Your task to perform on an android device: toggle sleep mode Image 0: 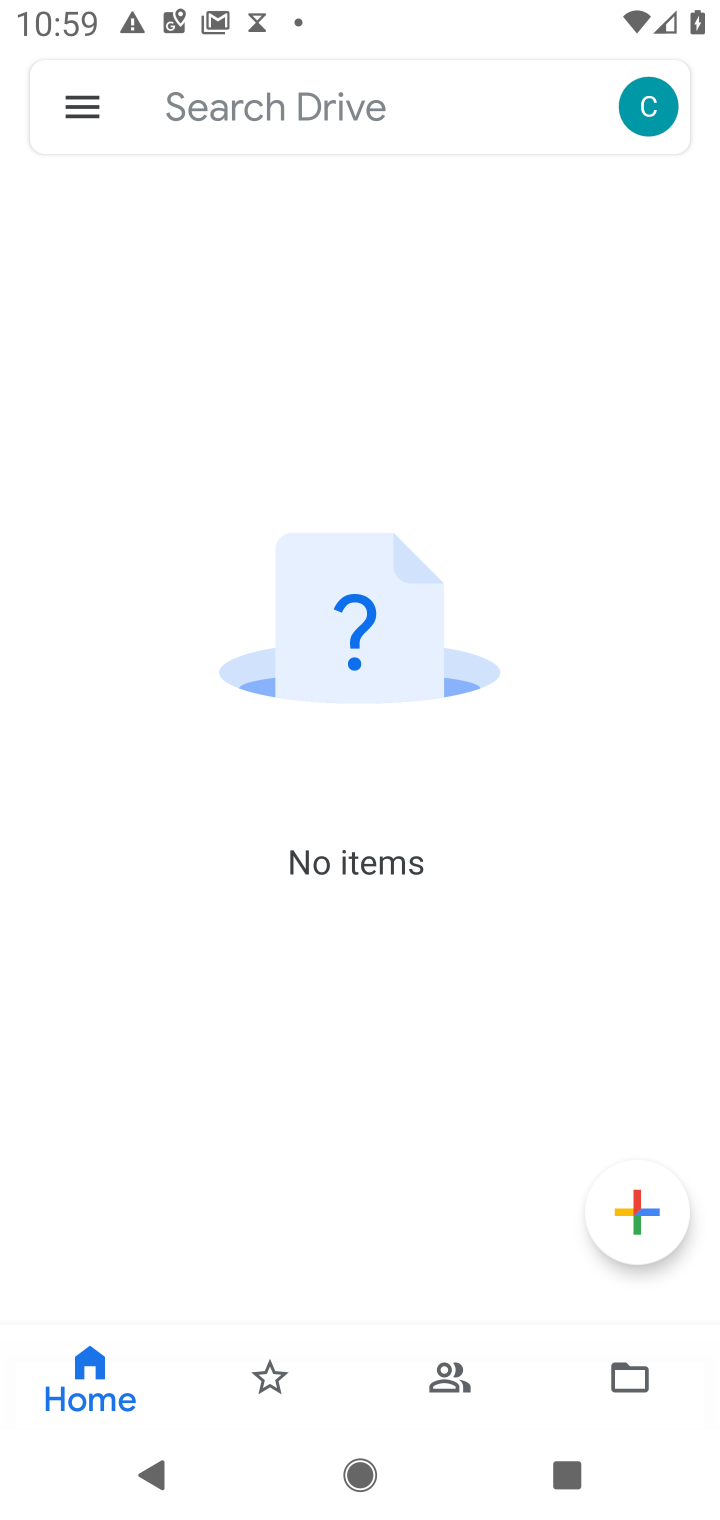
Step 0: press home button
Your task to perform on an android device: toggle sleep mode Image 1: 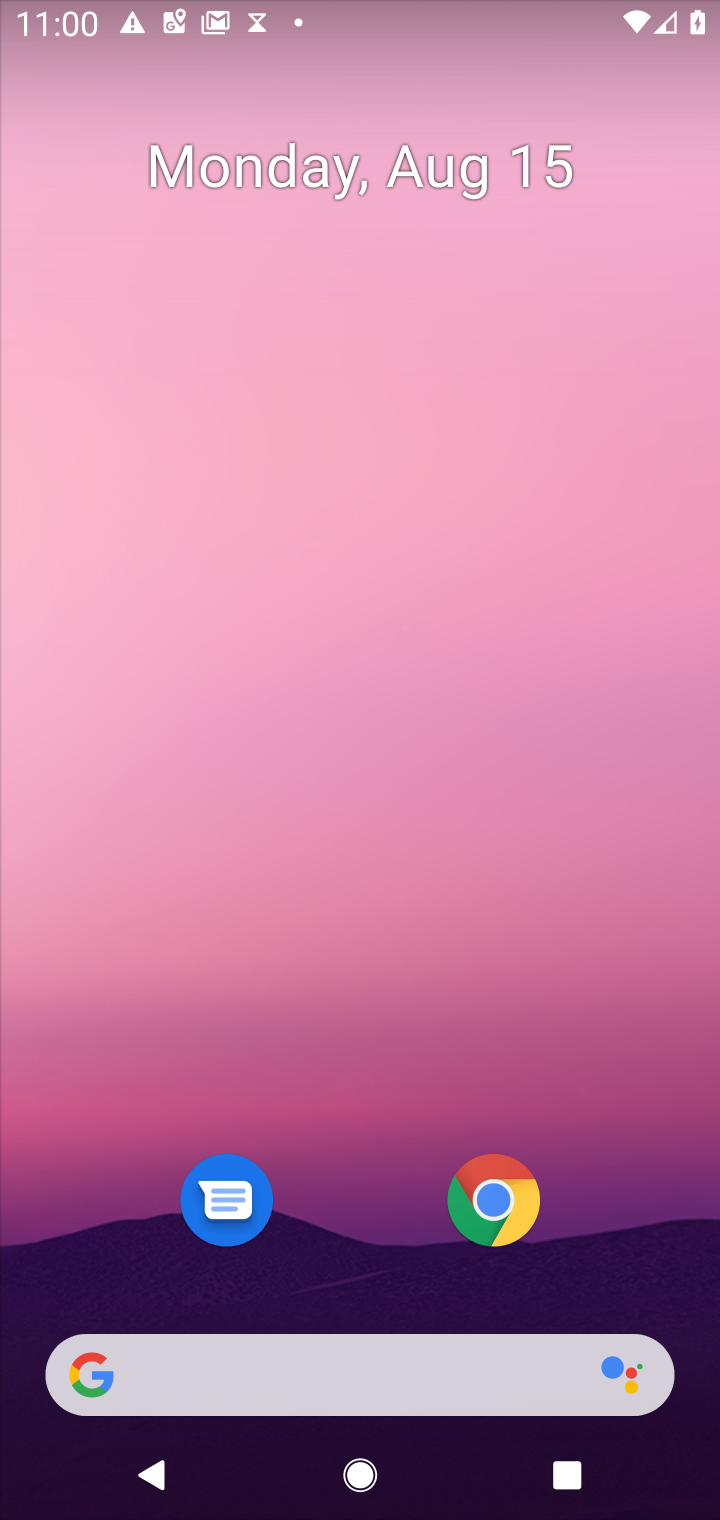
Step 1: drag from (352, 885) to (352, 230)
Your task to perform on an android device: toggle sleep mode Image 2: 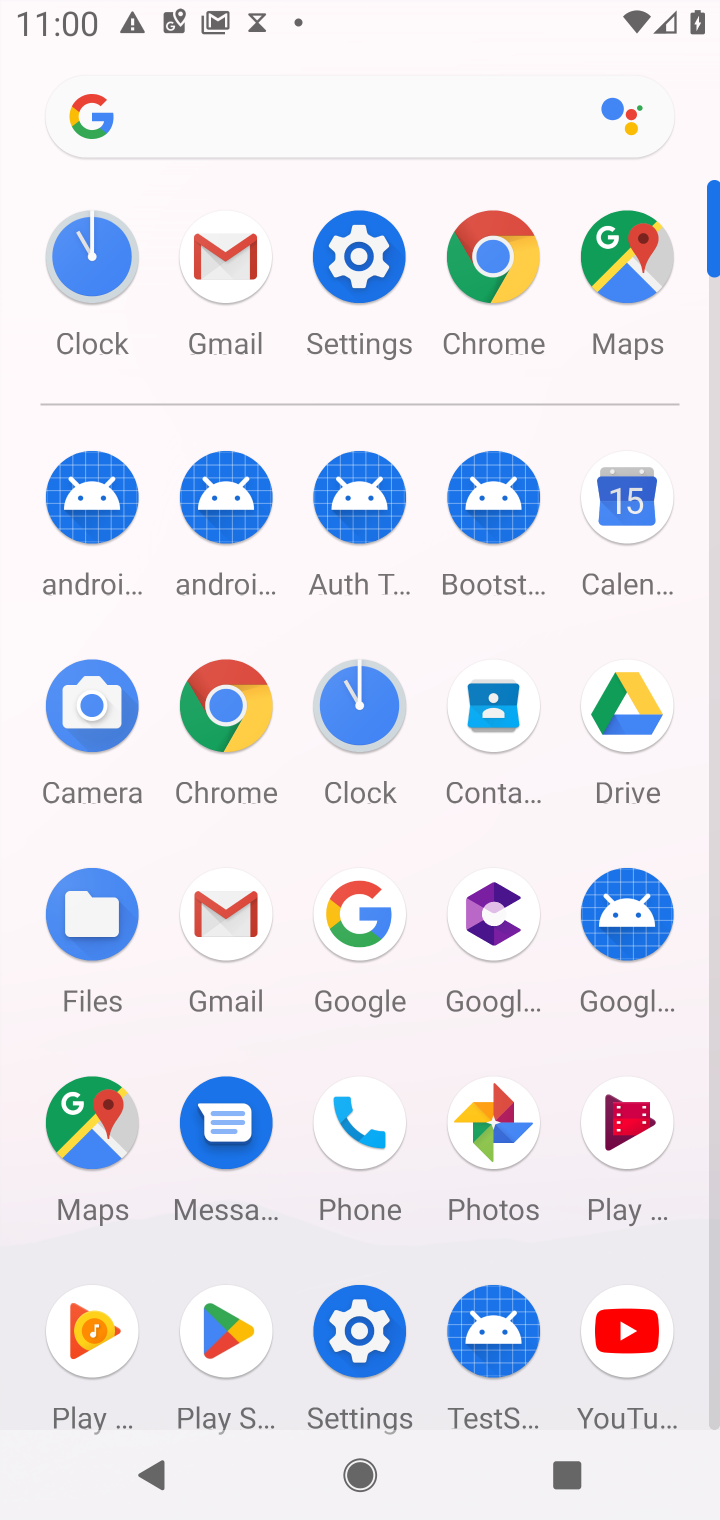
Step 2: click (352, 311)
Your task to perform on an android device: toggle sleep mode Image 3: 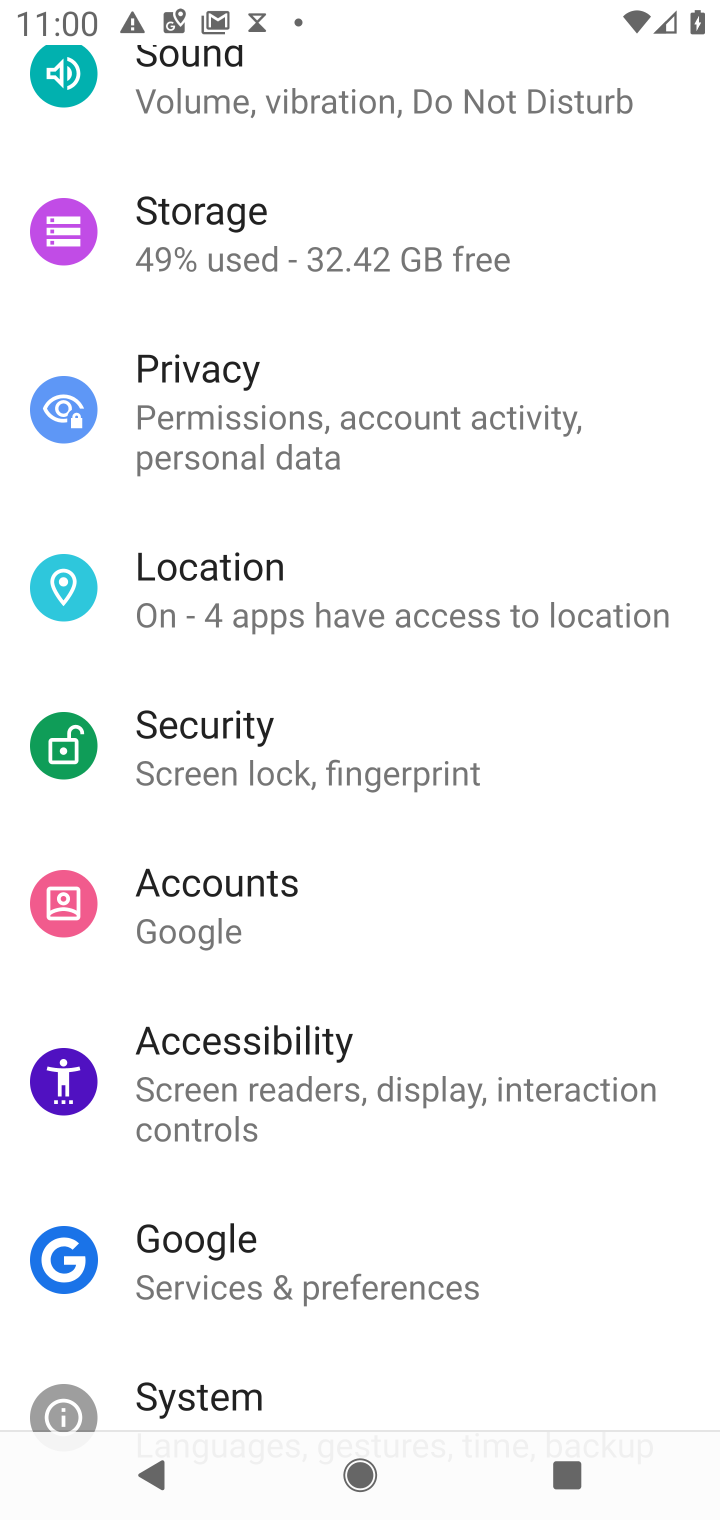
Step 3: drag from (274, 349) to (337, 1058)
Your task to perform on an android device: toggle sleep mode Image 4: 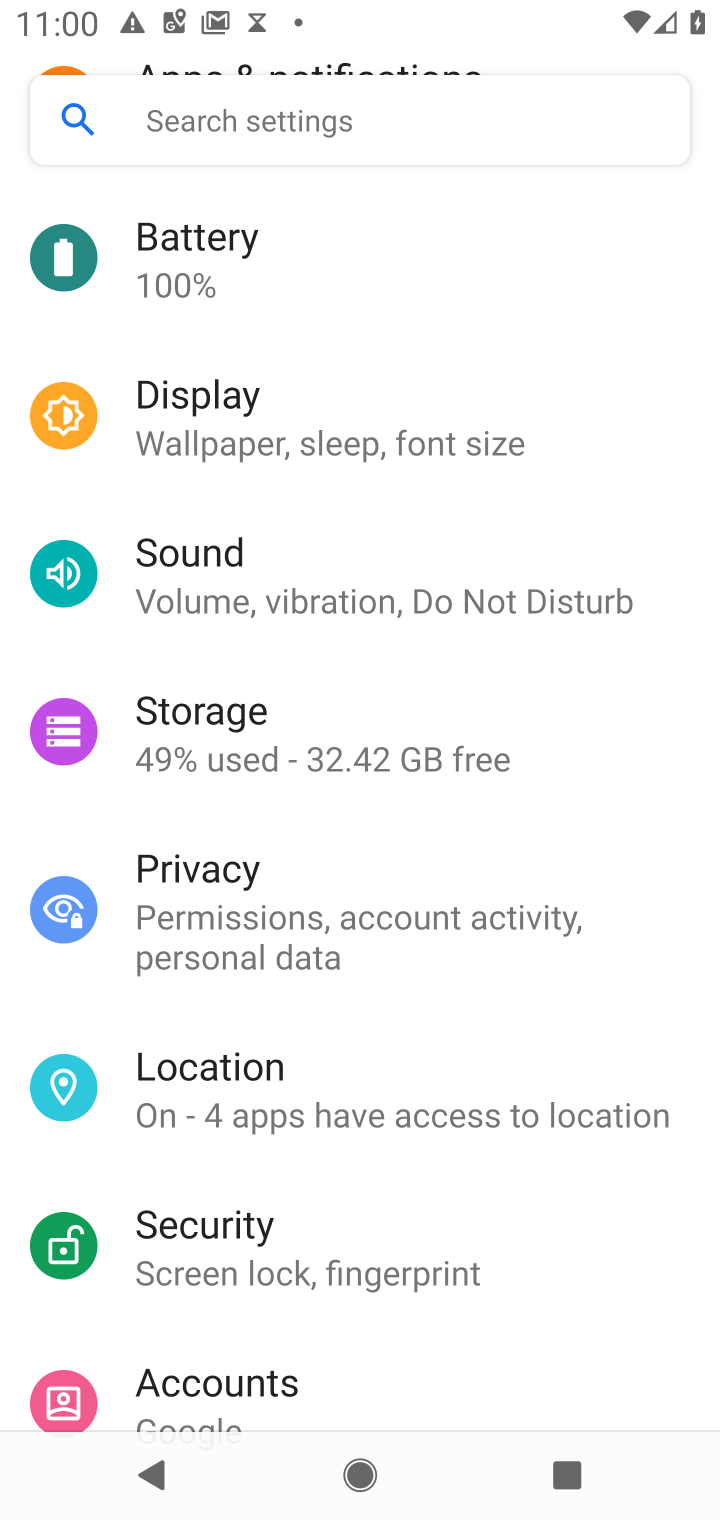
Step 4: click (258, 452)
Your task to perform on an android device: toggle sleep mode Image 5: 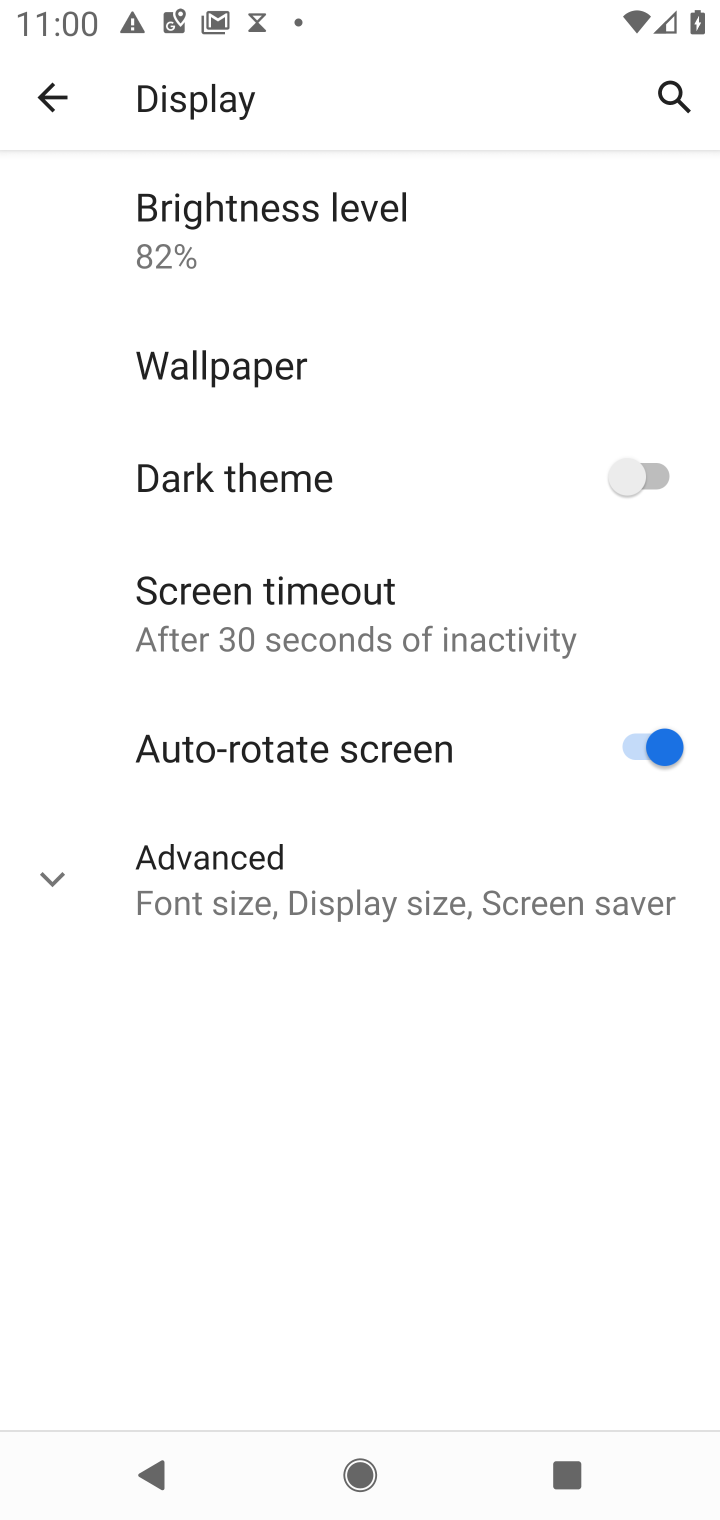
Step 5: click (354, 615)
Your task to perform on an android device: toggle sleep mode Image 6: 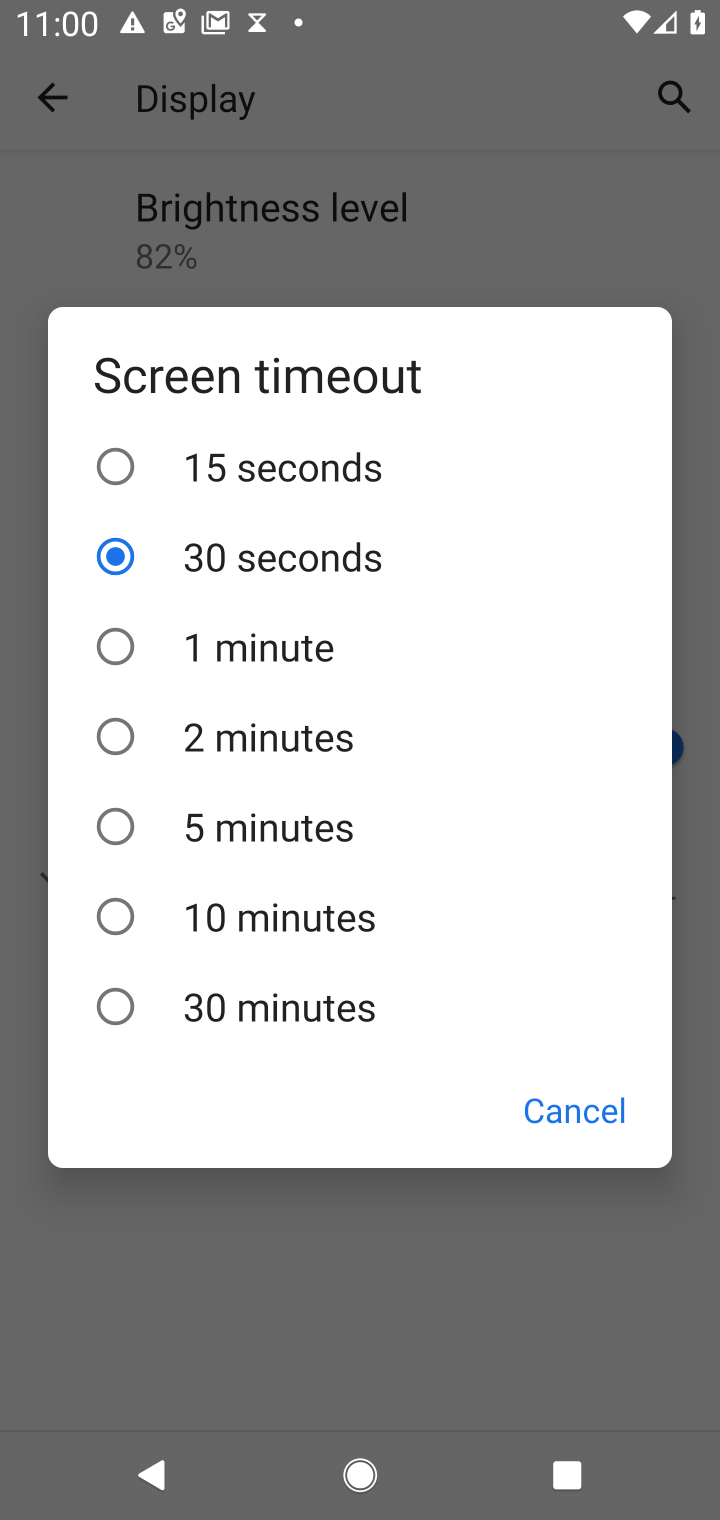
Step 6: click (328, 829)
Your task to perform on an android device: toggle sleep mode Image 7: 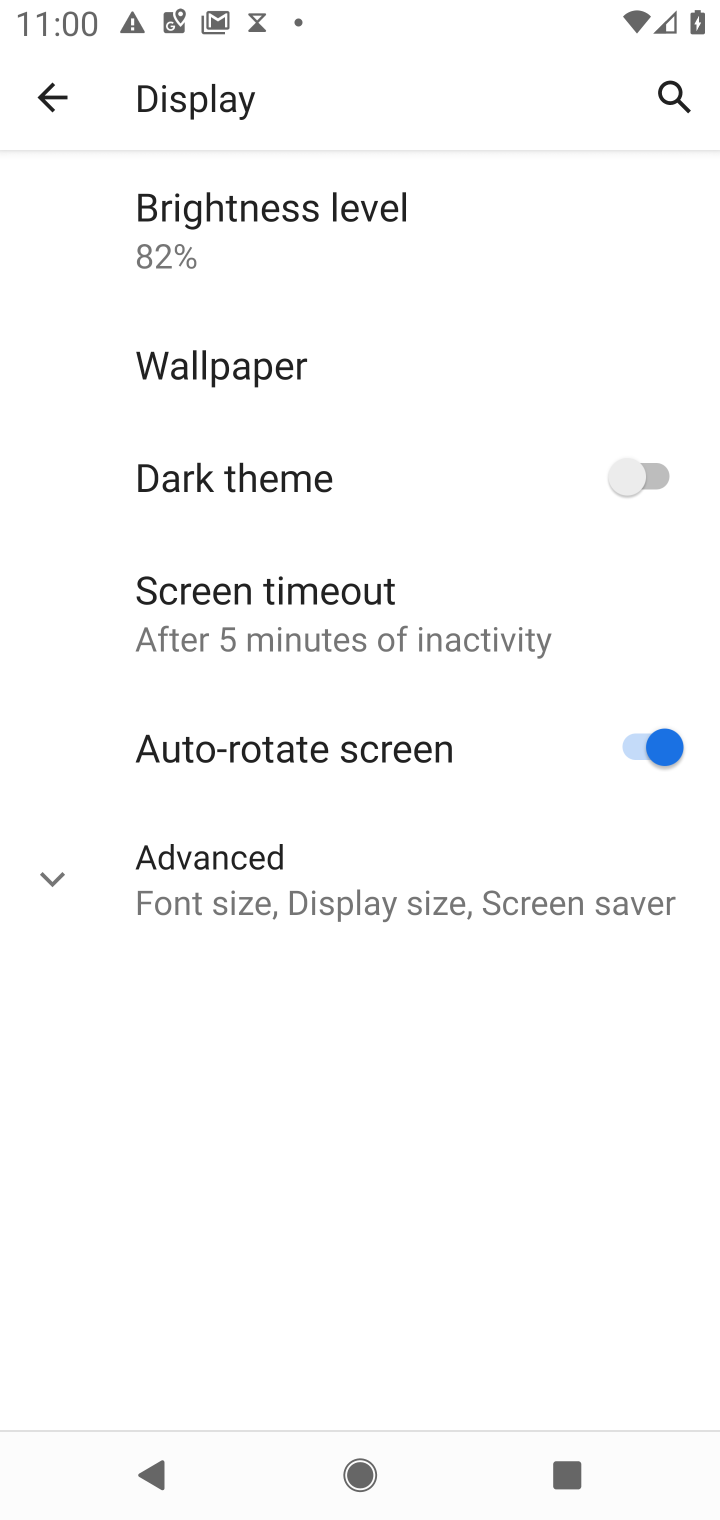
Step 7: task complete